Your task to perform on an android device: Open notification settings Image 0: 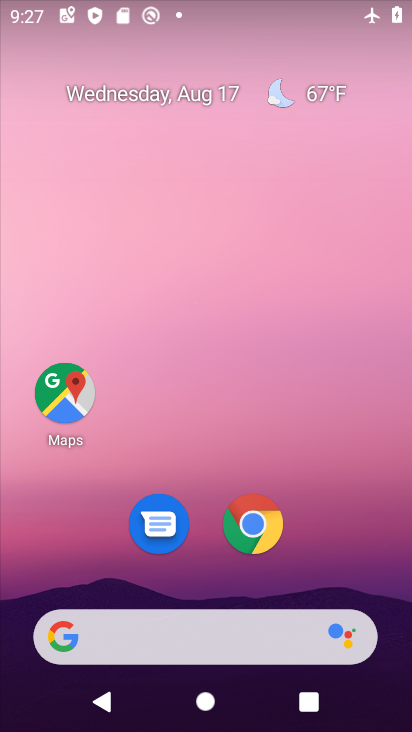
Step 0: drag from (341, 535) to (366, 0)
Your task to perform on an android device: Open notification settings Image 1: 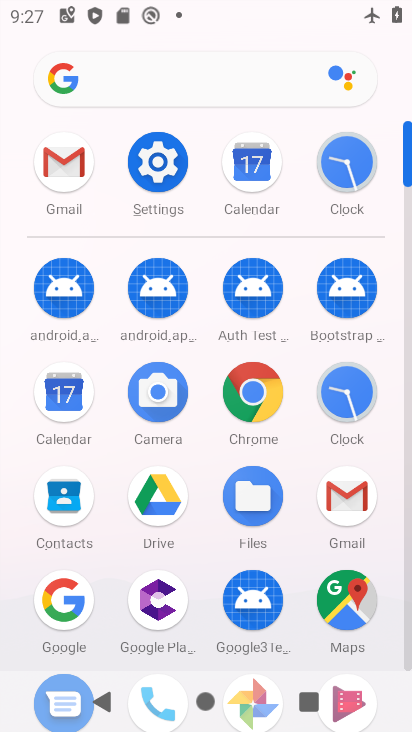
Step 1: click (163, 159)
Your task to perform on an android device: Open notification settings Image 2: 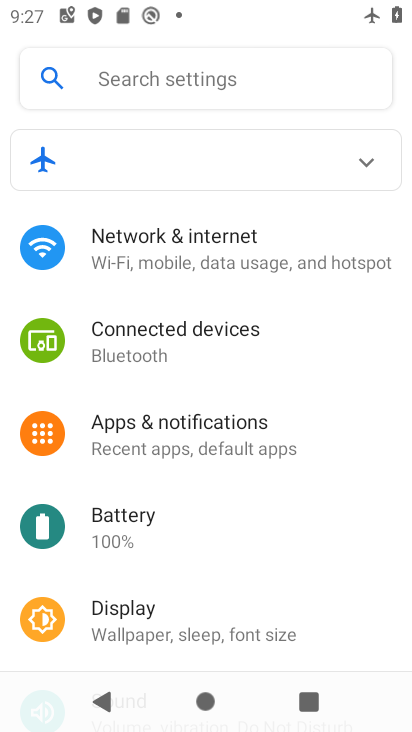
Step 2: click (228, 437)
Your task to perform on an android device: Open notification settings Image 3: 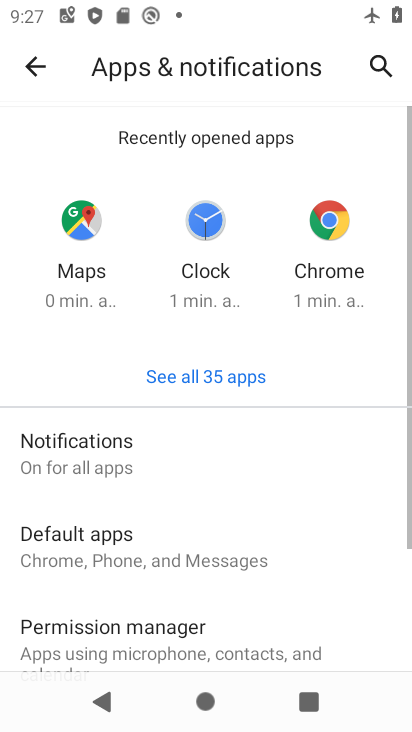
Step 3: click (120, 450)
Your task to perform on an android device: Open notification settings Image 4: 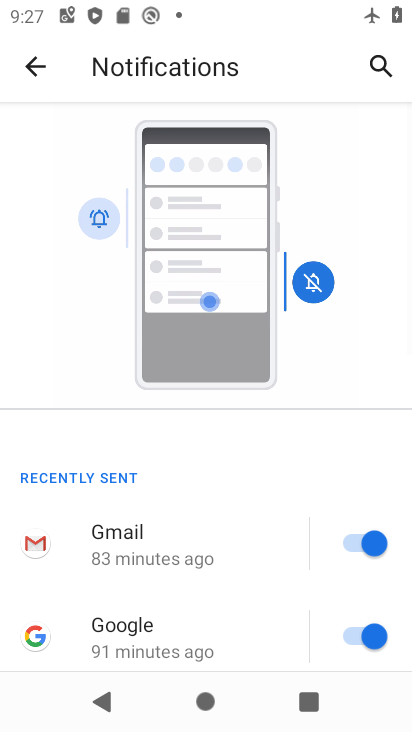
Step 4: task complete